Your task to perform on an android device: Open Amazon Image 0: 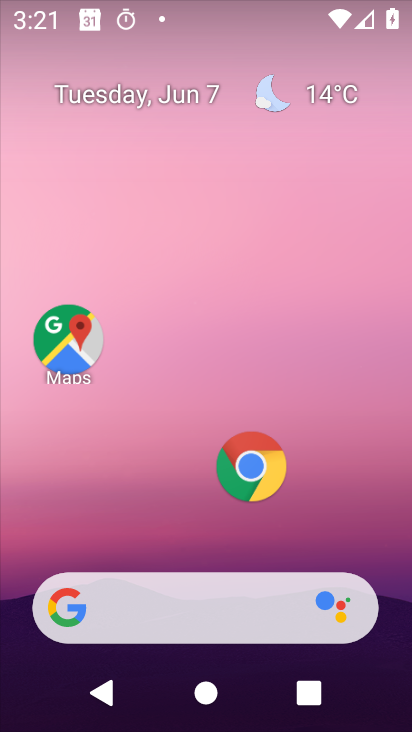
Step 0: click (265, 483)
Your task to perform on an android device: Open Amazon Image 1: 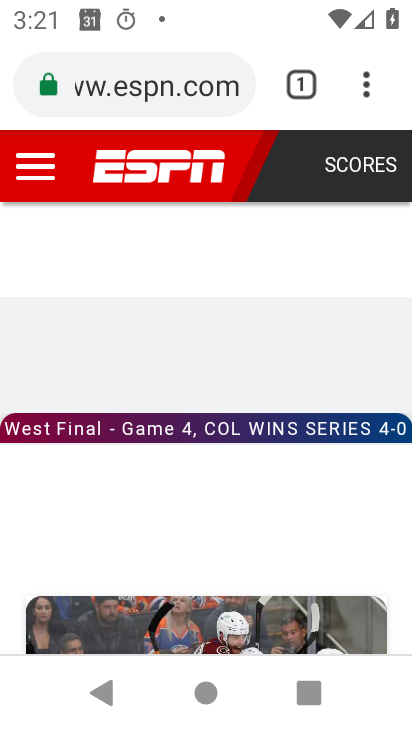
Step 1: click (318, 101)
Your task to perform on an android device: Open Amazon Image 2: 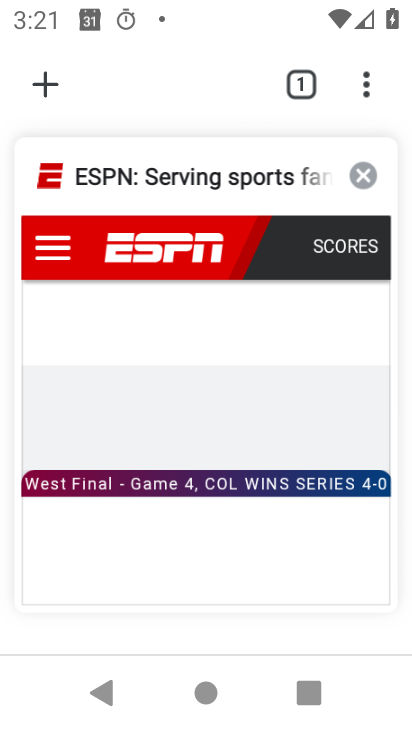
Step 2: click (361, 173)
Your task to perform on an android device: Open Amazon Image 3: 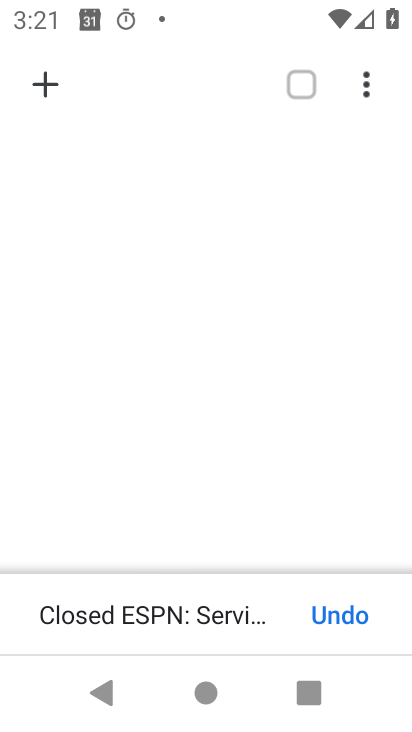
Step 3: click (44, 82)
Your task to perform on an android device: Open Amazon Image 4: 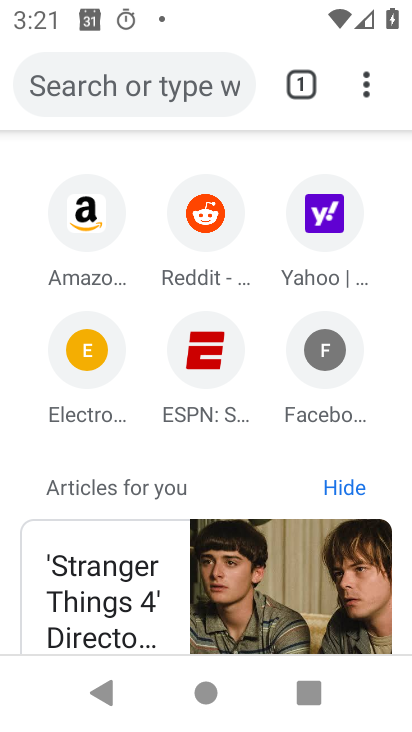
Step 4: click (66, 223)
Your task to perform on an android device: Open Amazon Image 5: 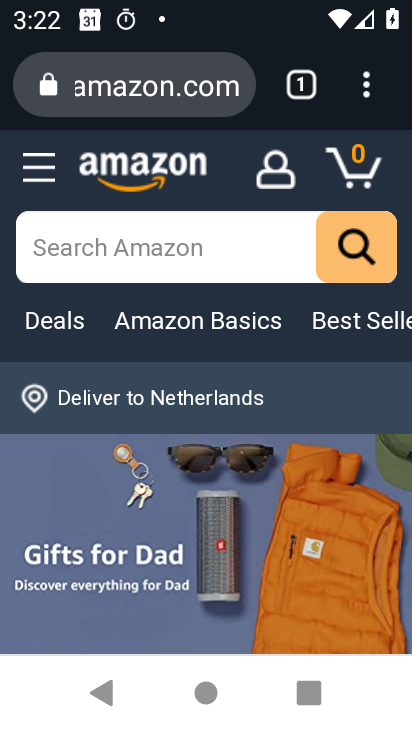
Step 5: task complete